Your task to perform on an android device: change the clock display to show seconds Image 0: 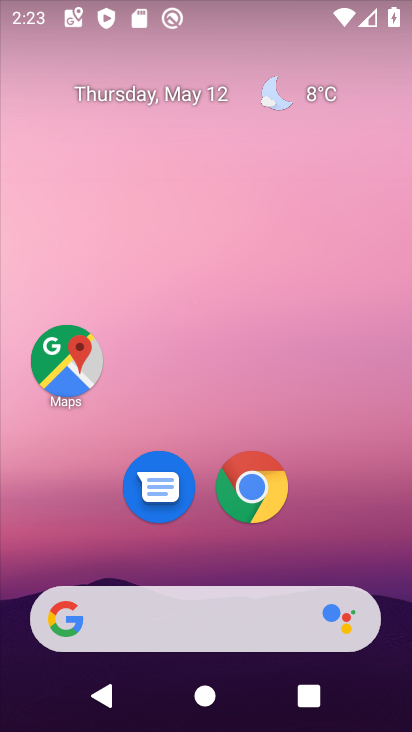
Step 0: drag from (212, 438) to (242, 90)
Your task to perform on an android device: change the clock display to show seconds Image 1: 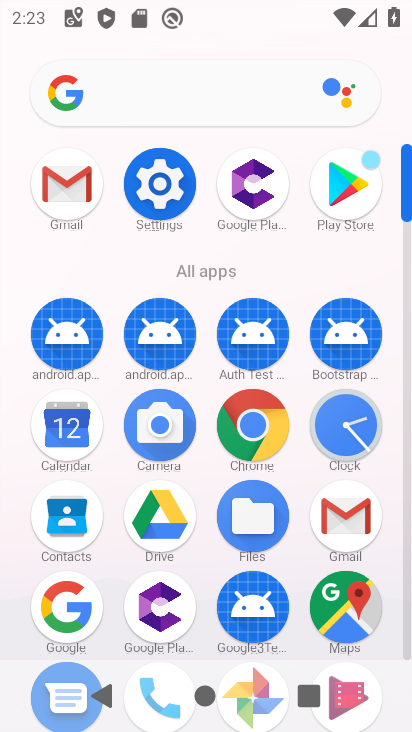
Step 1: click (342, 434)
Your task to perform on an android device: change the clock display to show seconds Image 2: 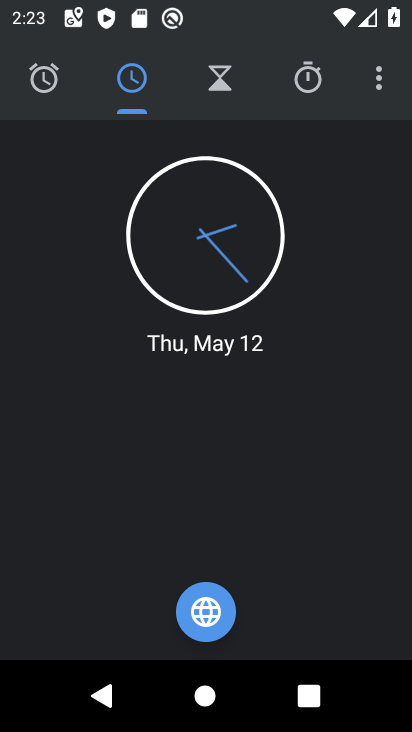
Step 2: click (372, 79)
Your task to perform on an android device: change the clock display to show seconds Image 3: 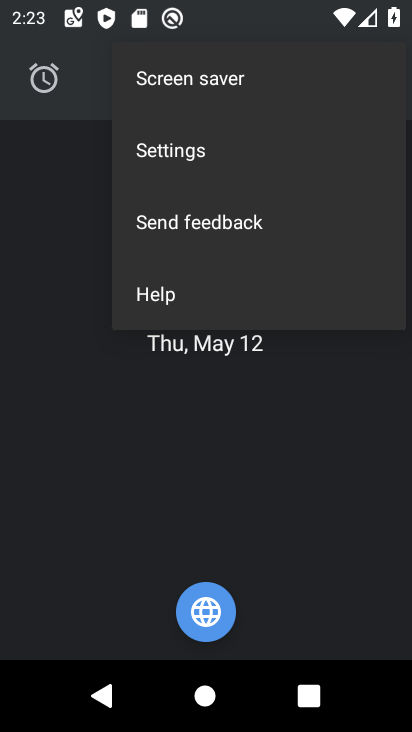
Step 3: click (207, 161)
Your task to perform on an android device: change the clock display to show seconds Image 4: 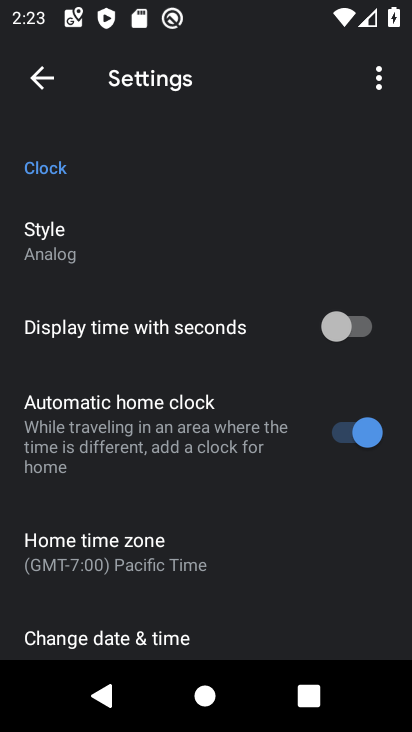
Step 4: click (350, 330)
Your task to perform on an android device: change the clock display to show seconds Image 5: 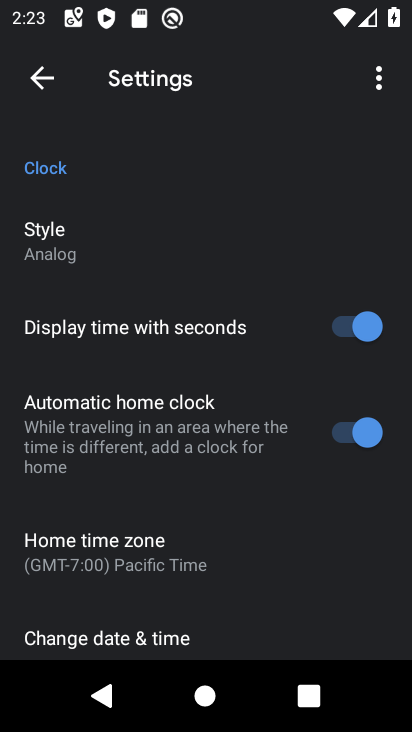
Step 5: task complete